Your task to perform on an android device: What is the news today? Image 0: 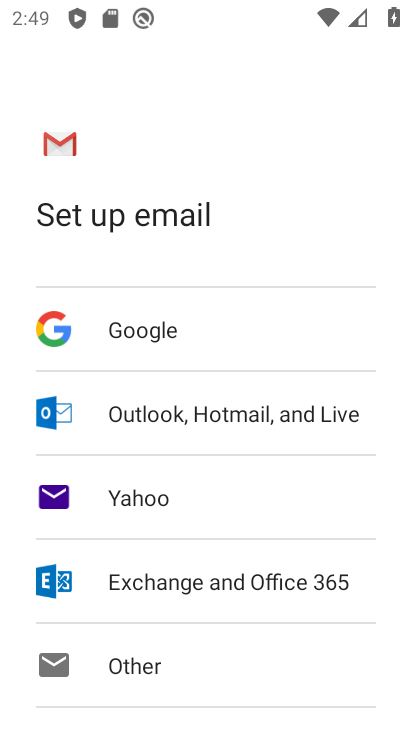
Step 0: press home button
Your task to perform on an android device: What is the news today? Image 1: 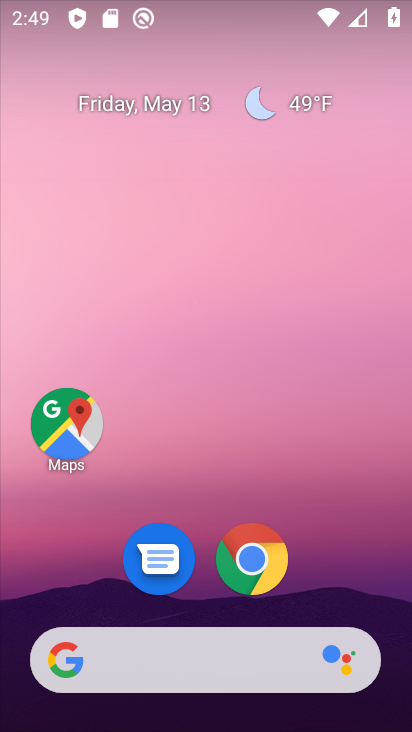
Step 1: task complete